Your task to perform on an android device: open app "Walmart Shopping & Grocery" (install if not already installed) Image 0: 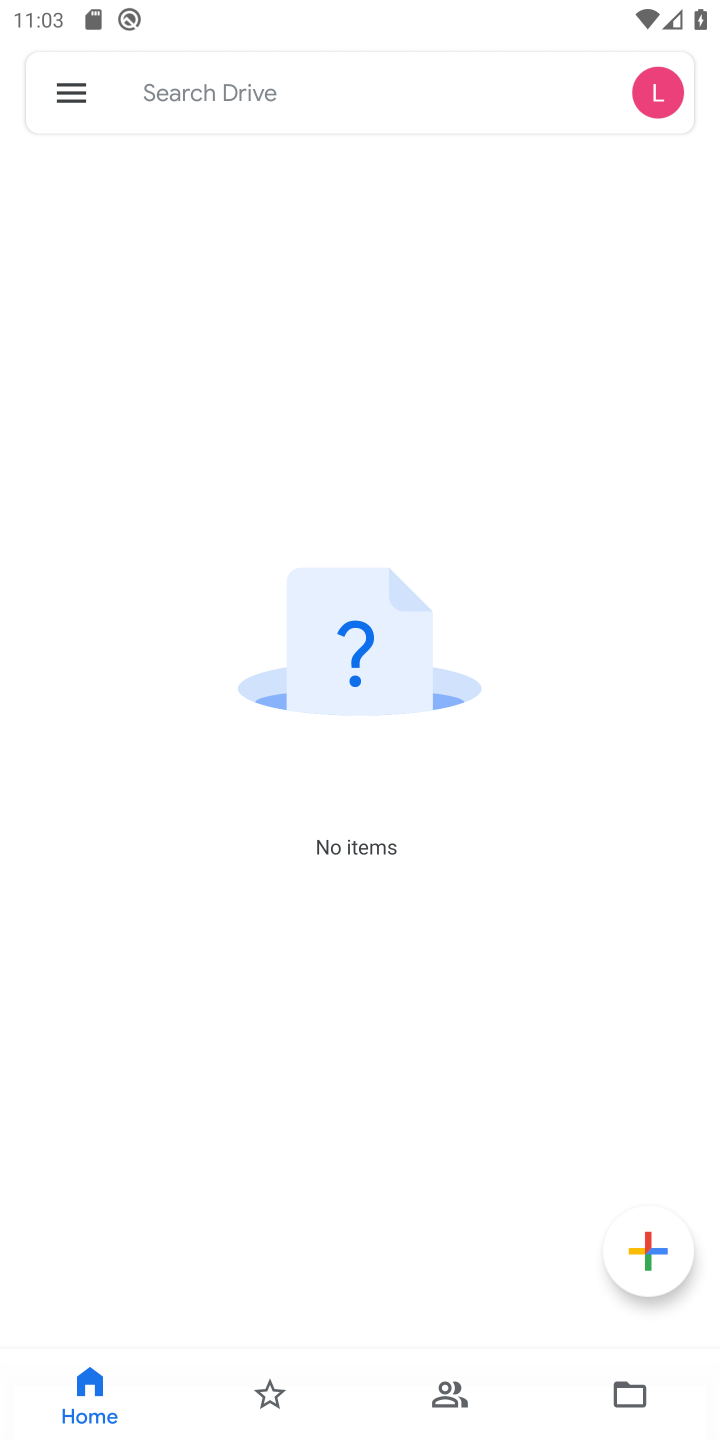
Step 0: press home button
Your task to perform on an android device: open app "Walmart Shopping & Grocery" (install if not already installed) Image 1: 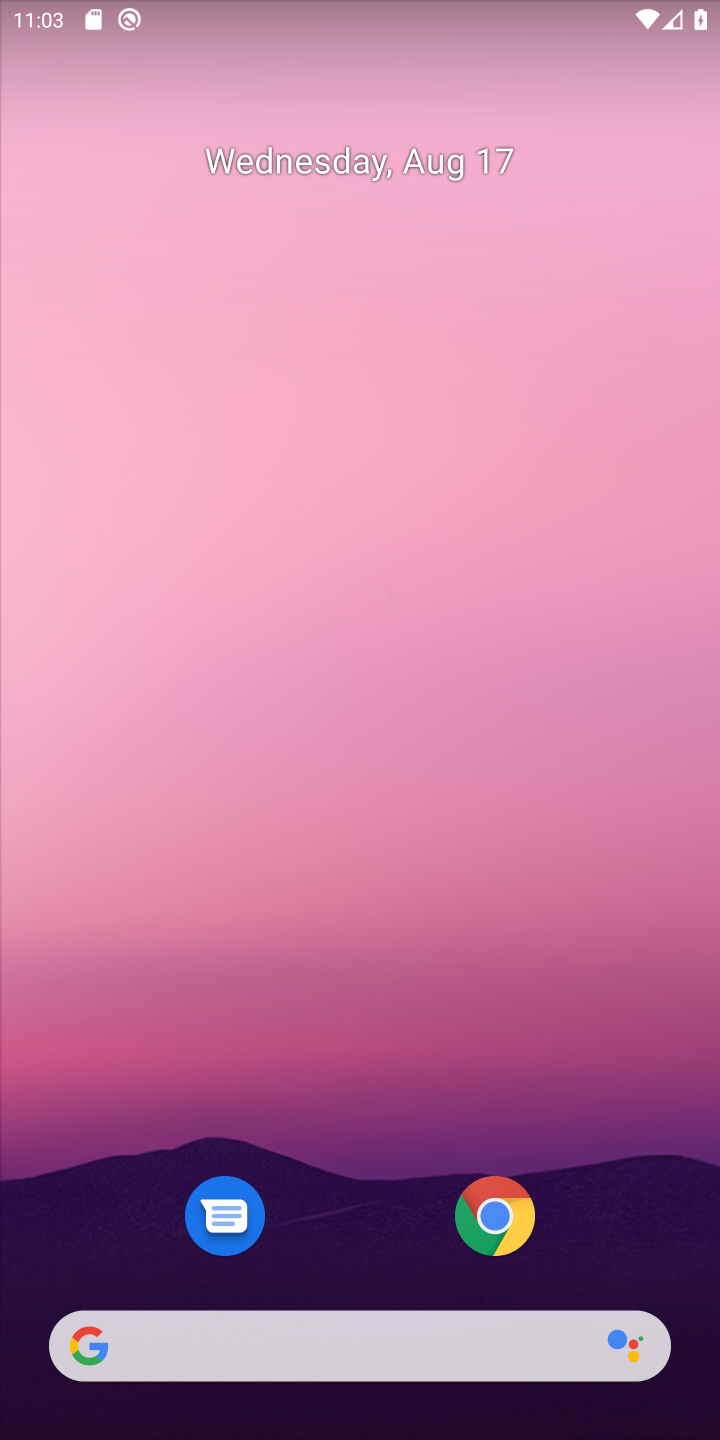
Step 1: drag from (336, 1110) to (304, 348)
Your task to perform on an android device: open app "Walmart Shopping & Grocery" (install if not already installed) Image 2: 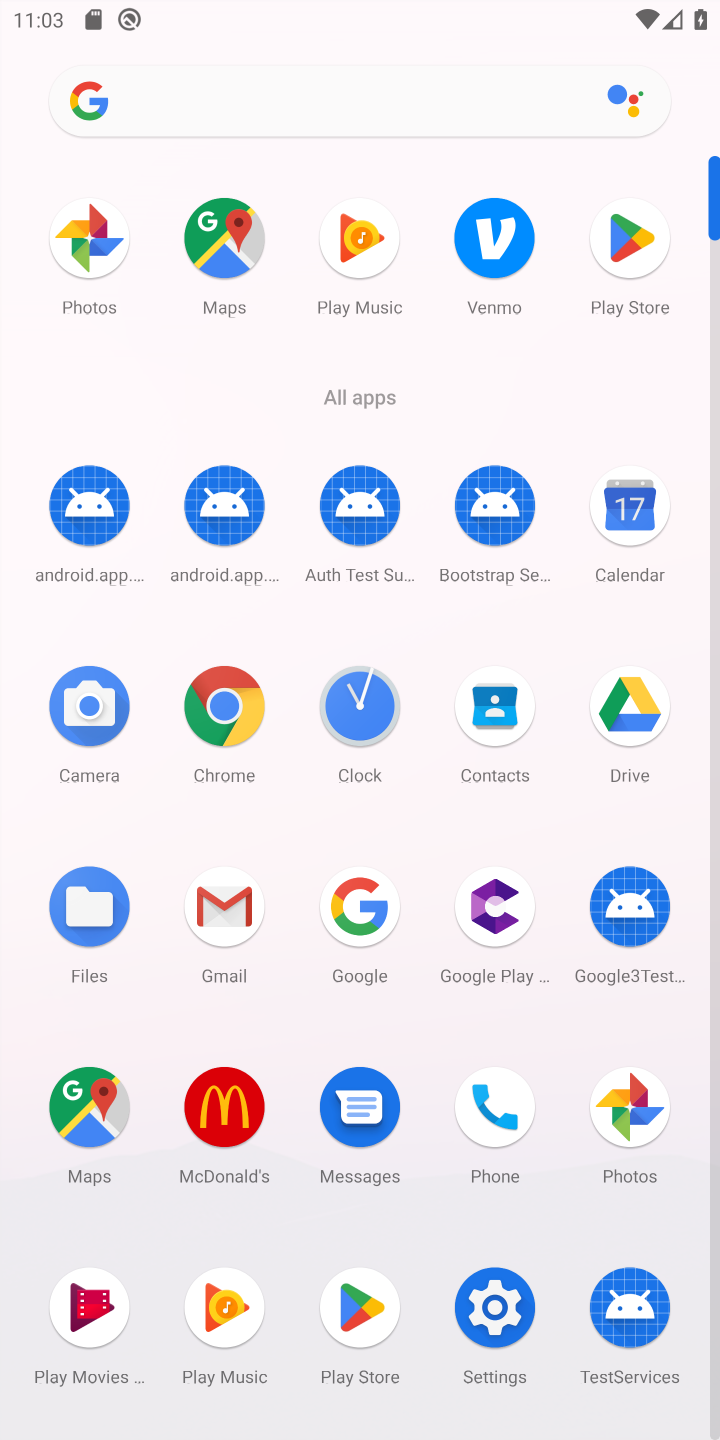
Step 2: click (359, 1318)
Your task to perform on an android device: open app "Walmart Shopping & Grocery" (install if not already installed) Image 3: 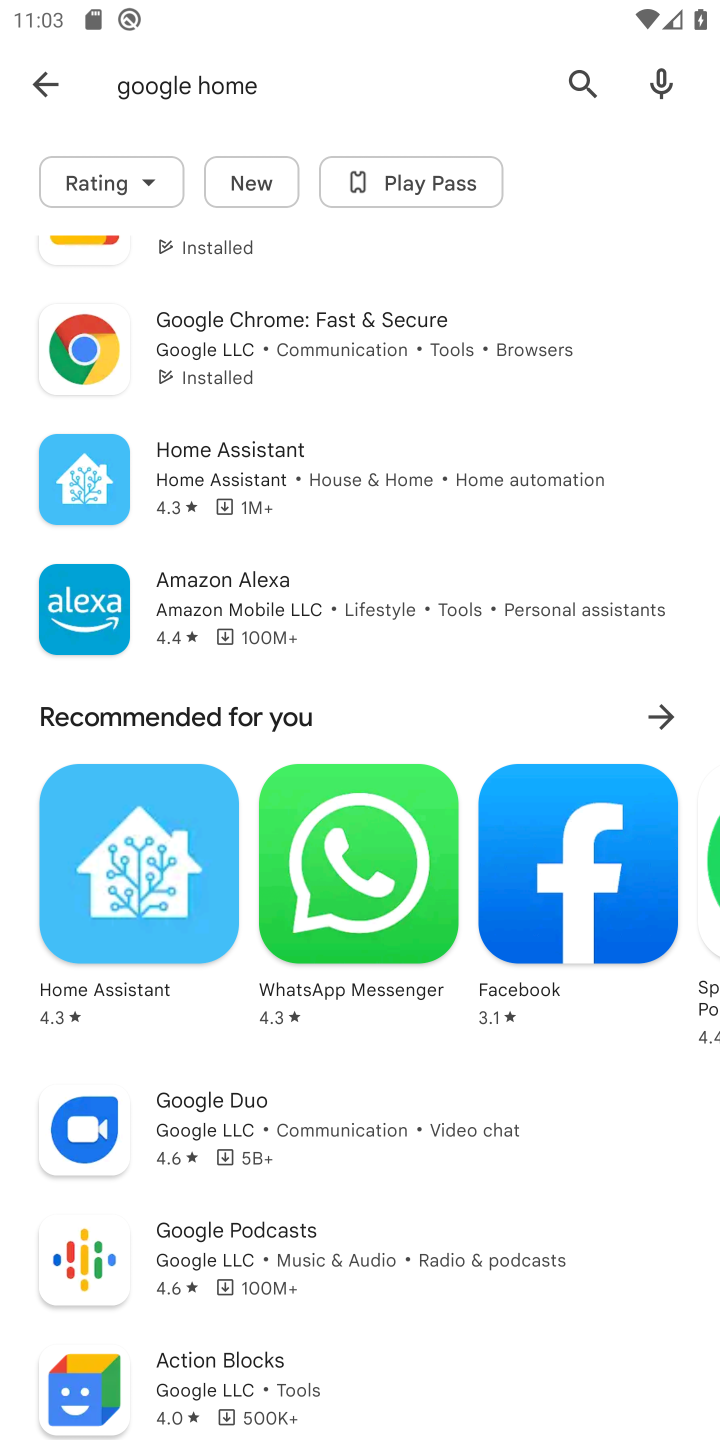
Step 3: click (568, 73)
Your task to perform on an android device: open app "Walmart Shopping & Grocery" (install if not already installed) Image 4: 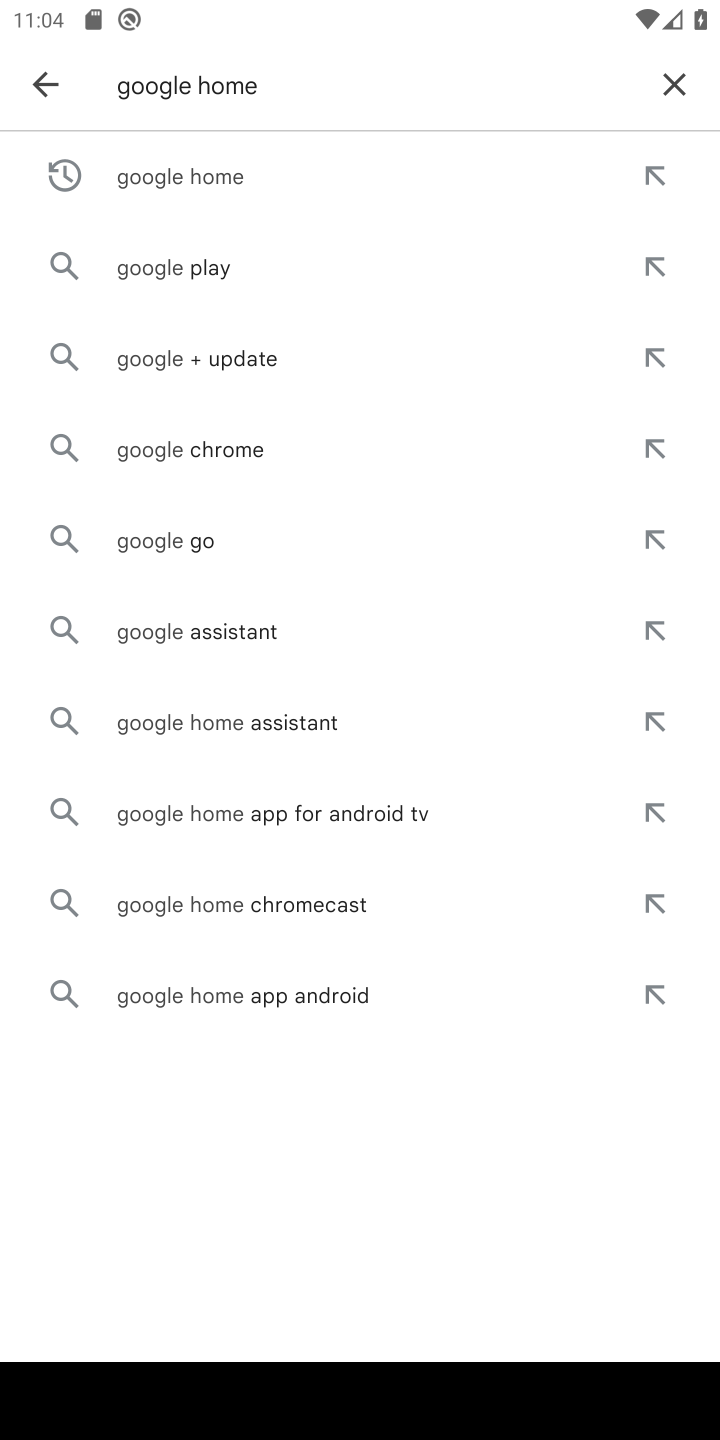
Step 4: click (684, 85)
Your task to perform on an android device: open app "Walmart Shopping & Grocery" (install if not already installed) Image 5: 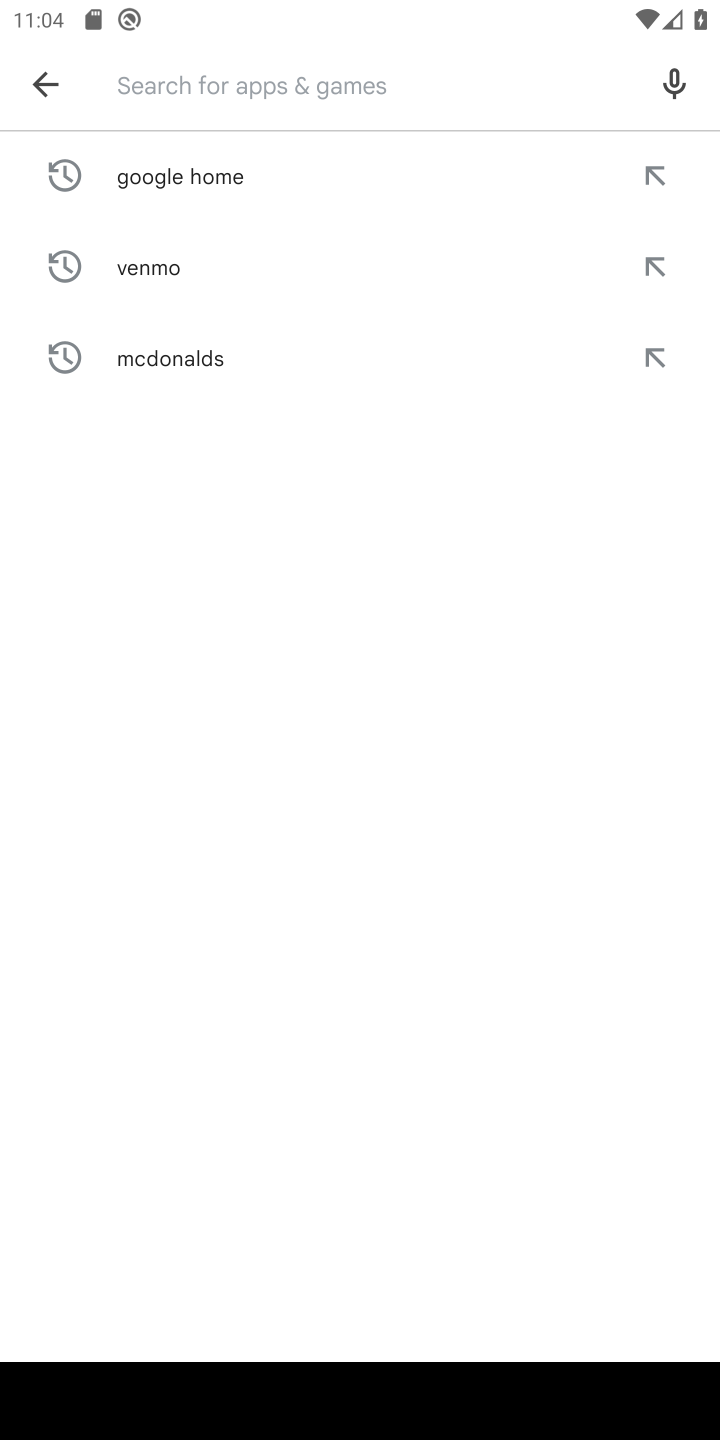
Step 5: type "walmart shopping"
Your task to perform on an android device: open app "Walmart Shopping & Grocery" (install if not already installed) Image 6: 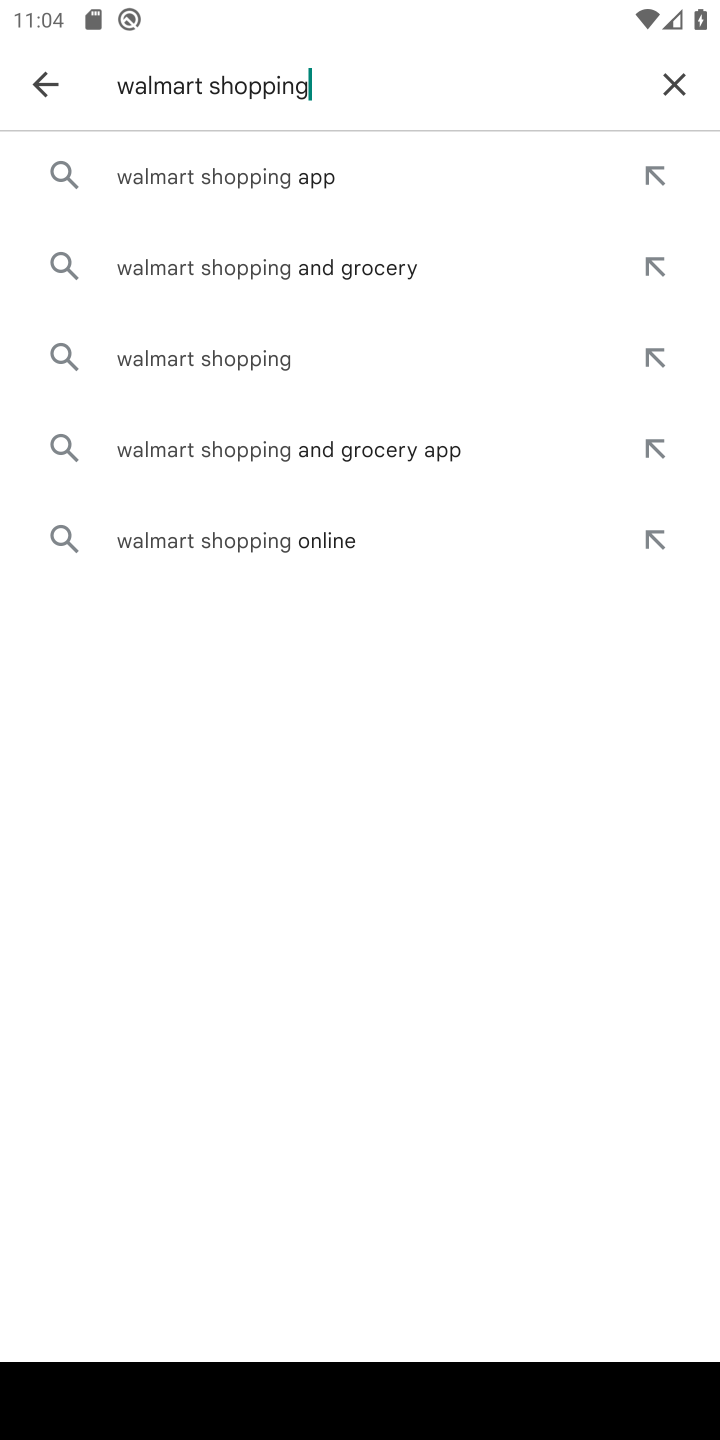
Step 6: click (339, 260)
Your task to perform on an android device: open app "Walmart Shopping & Grocery" (install if not already installed) Image 7: 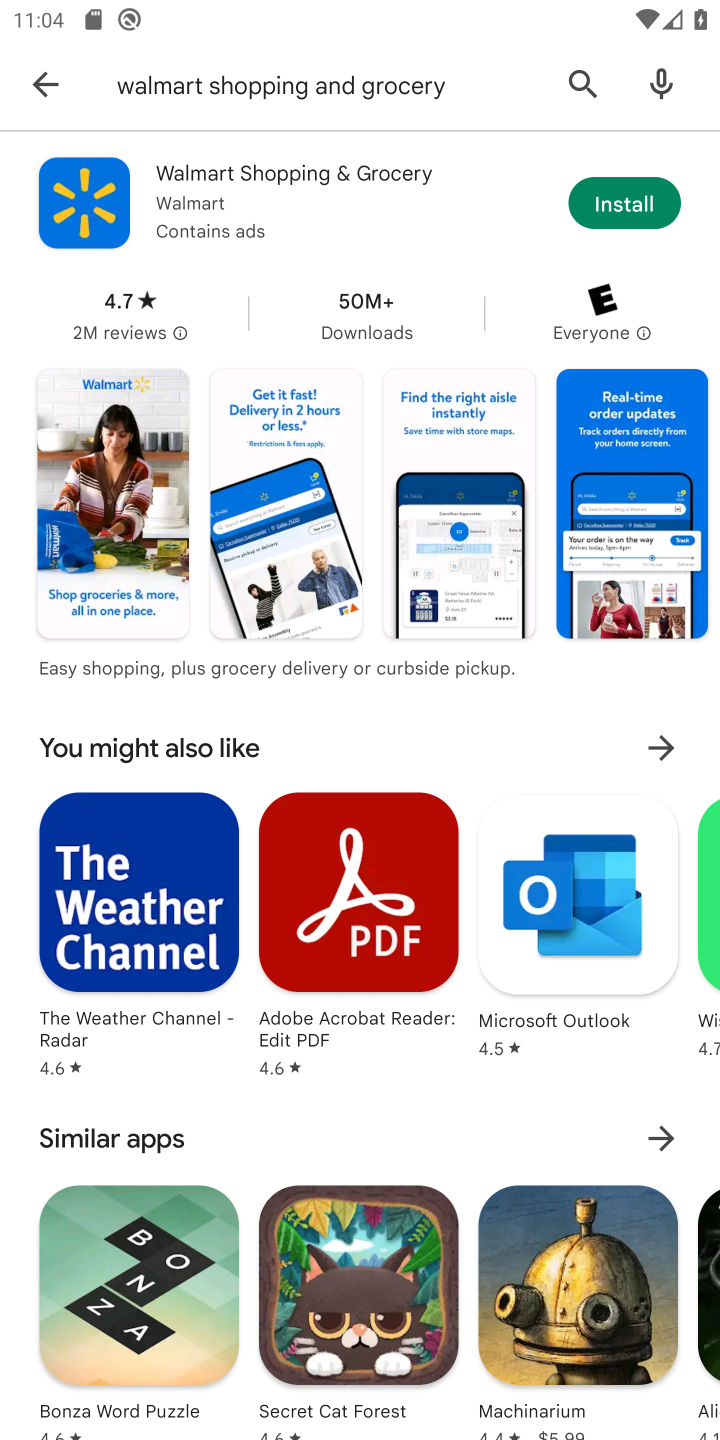
Step 7: click (608, 210)
Your task to perform on an android device: open app "Walmart Shopping & Grocery" (install if not already installed) Image 8: 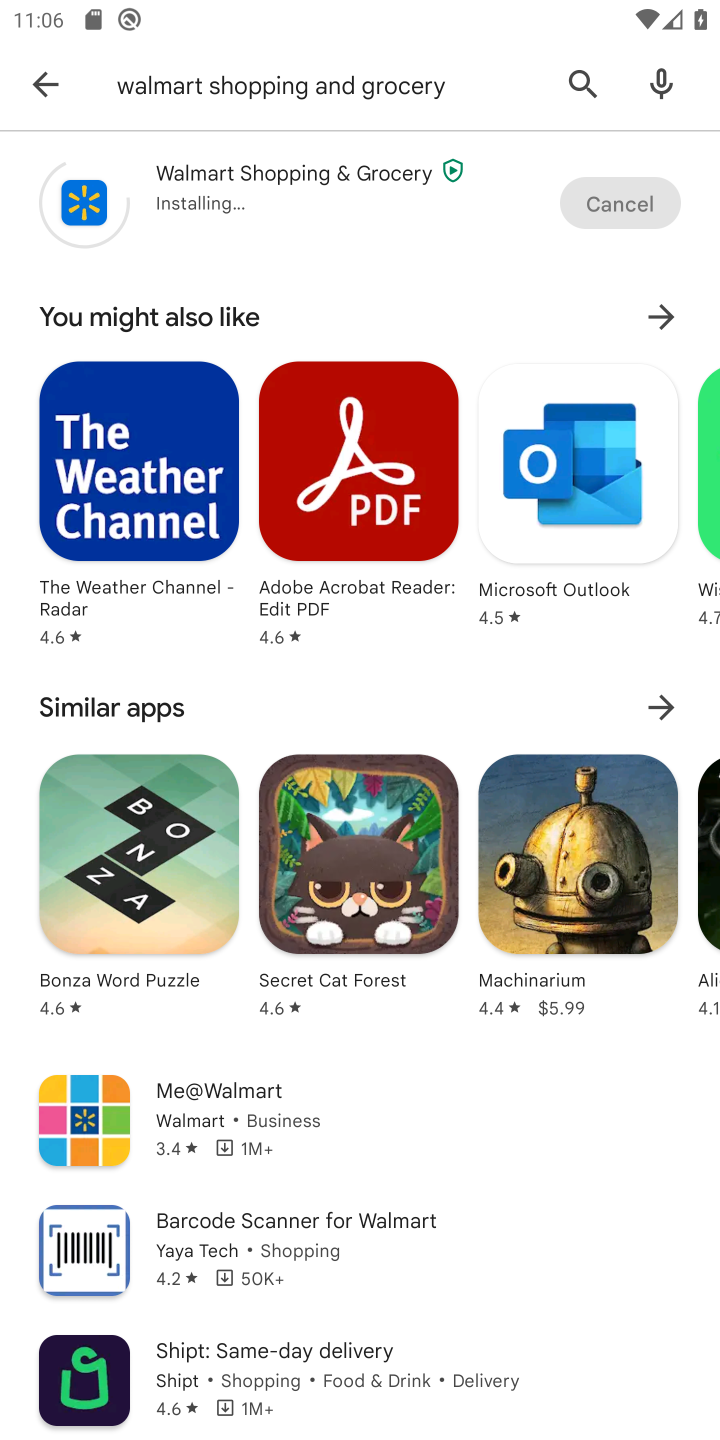
Step 8: click (374, 205)
Your task to perform on an android device: open app "Walmart Shopping & Grocery" (install if not already installed) Image 9: 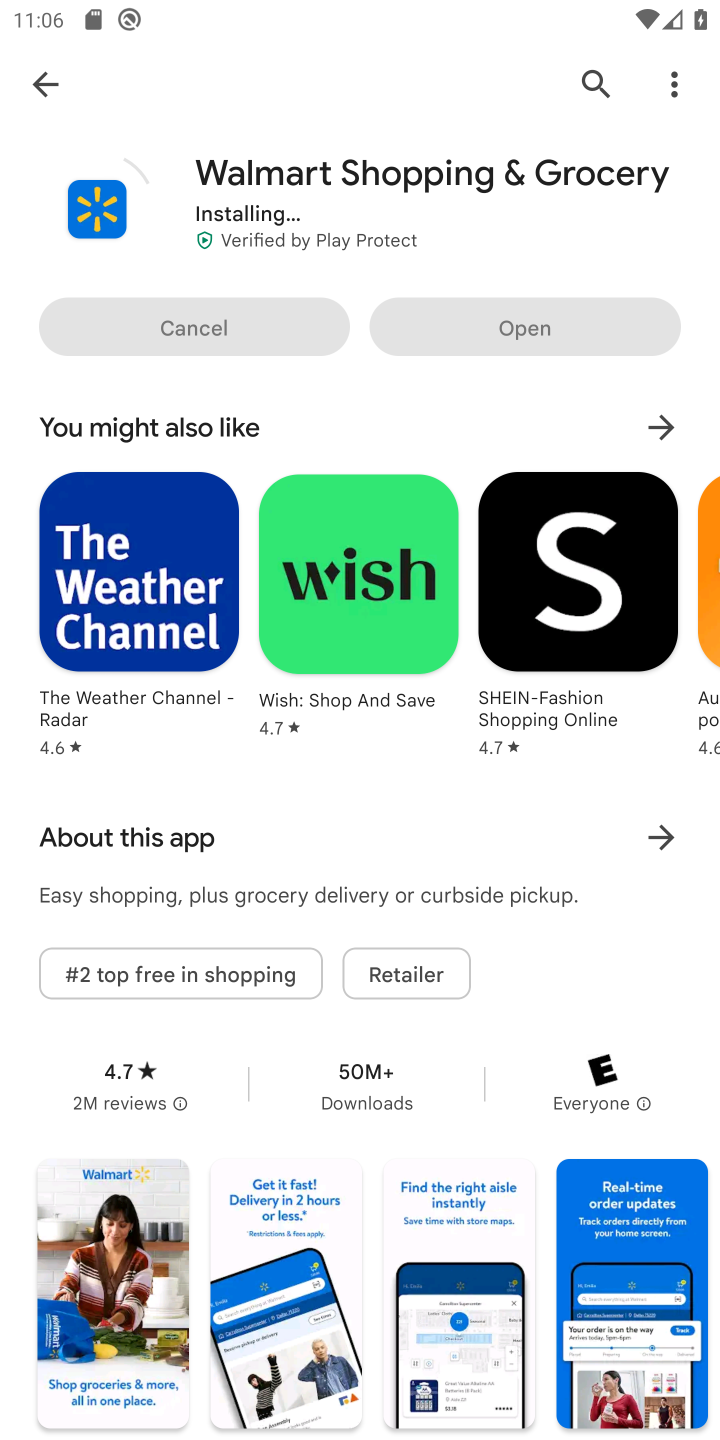
Step 9: drag from (374, 228) to (524, 1159)
Your task to perform on an android device: open app "Walmart Shopping & Grocery" (install if not already installed) Image 10: 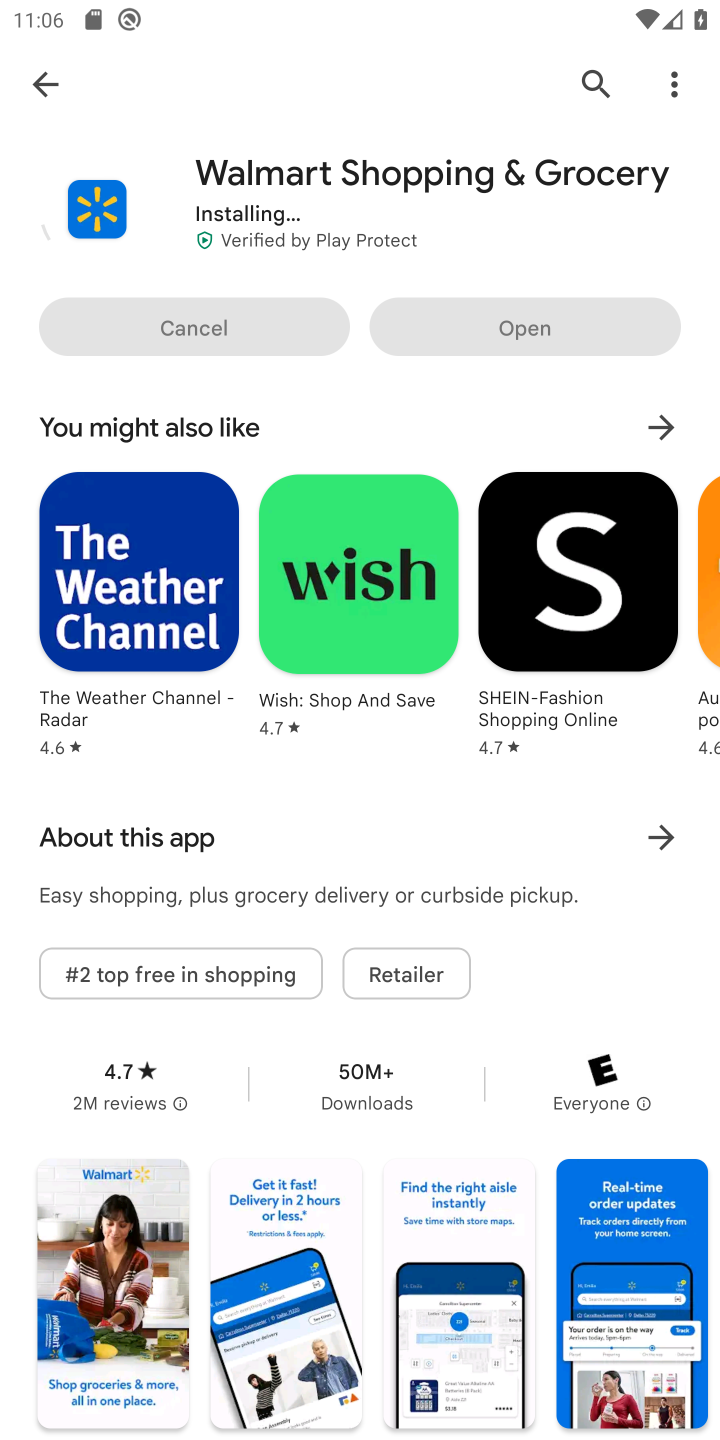
Step 10: drag from (356, 189) to (397, 1205)
Your task to perform on an android device: open app "Walmart Shopping & Grocery" (install if not already installed) Image 11: 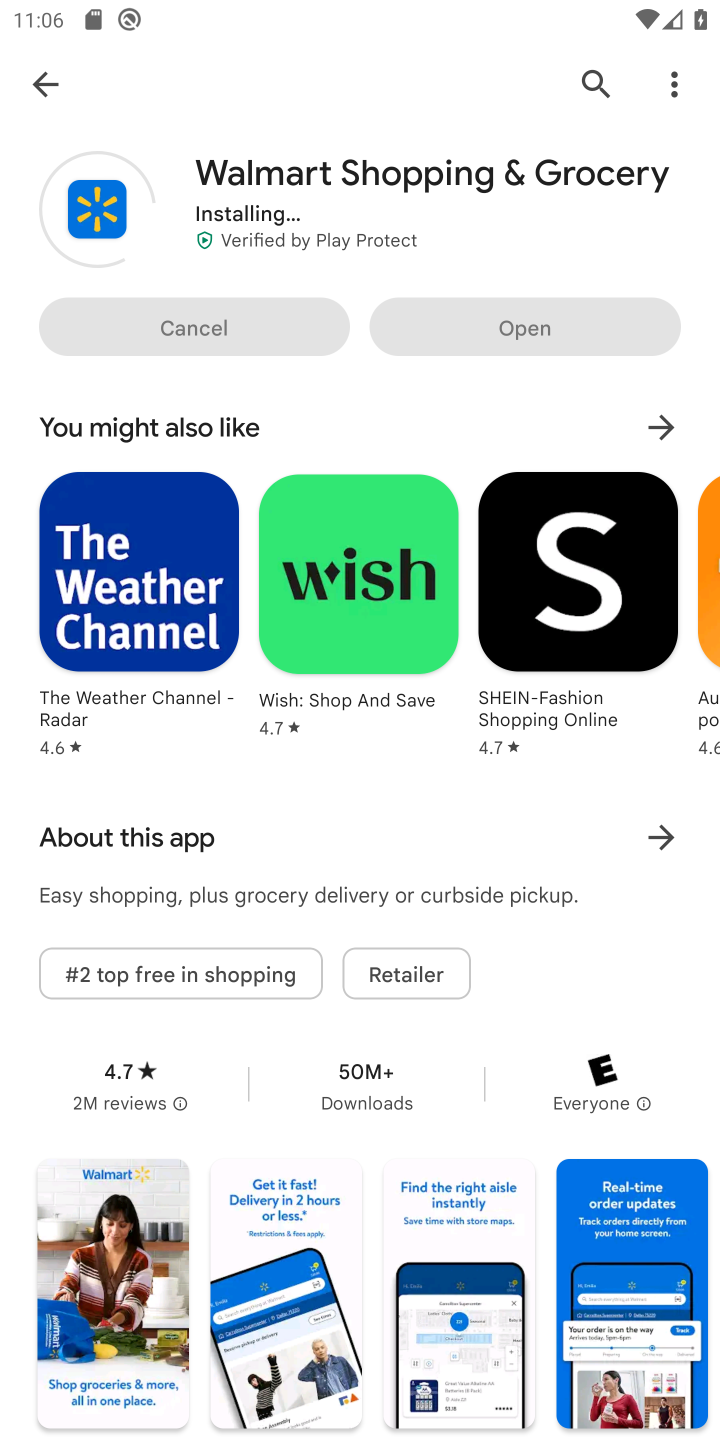
Step 11: drag from (384, 802) to (467, 1375)
Your task to perform on an android device: open app "Walmart Shopping & Grocery" (install if not already installed) Image 12: 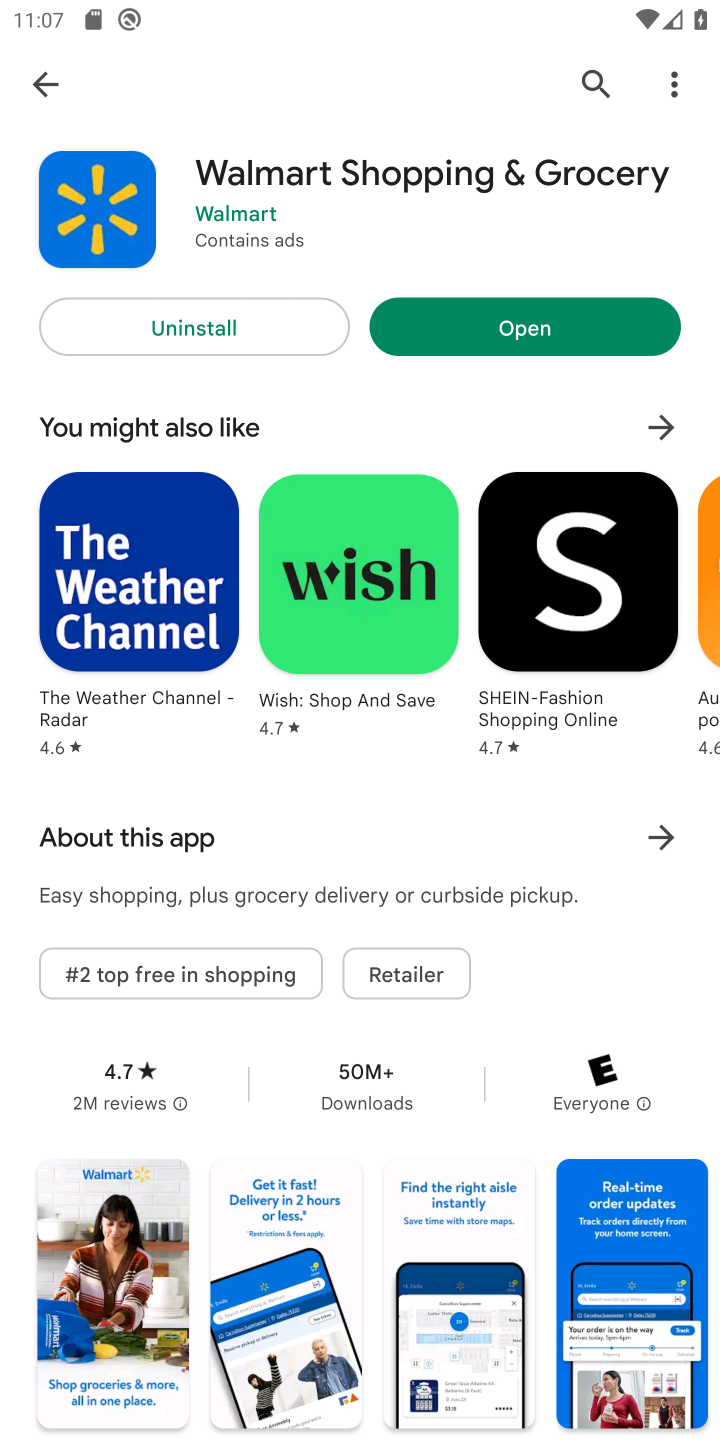
Step 12: click (581, 314)
Your task to perform on an android device: open app "Walmart Shopping & Grocery" (install if not already installed) Image 13: 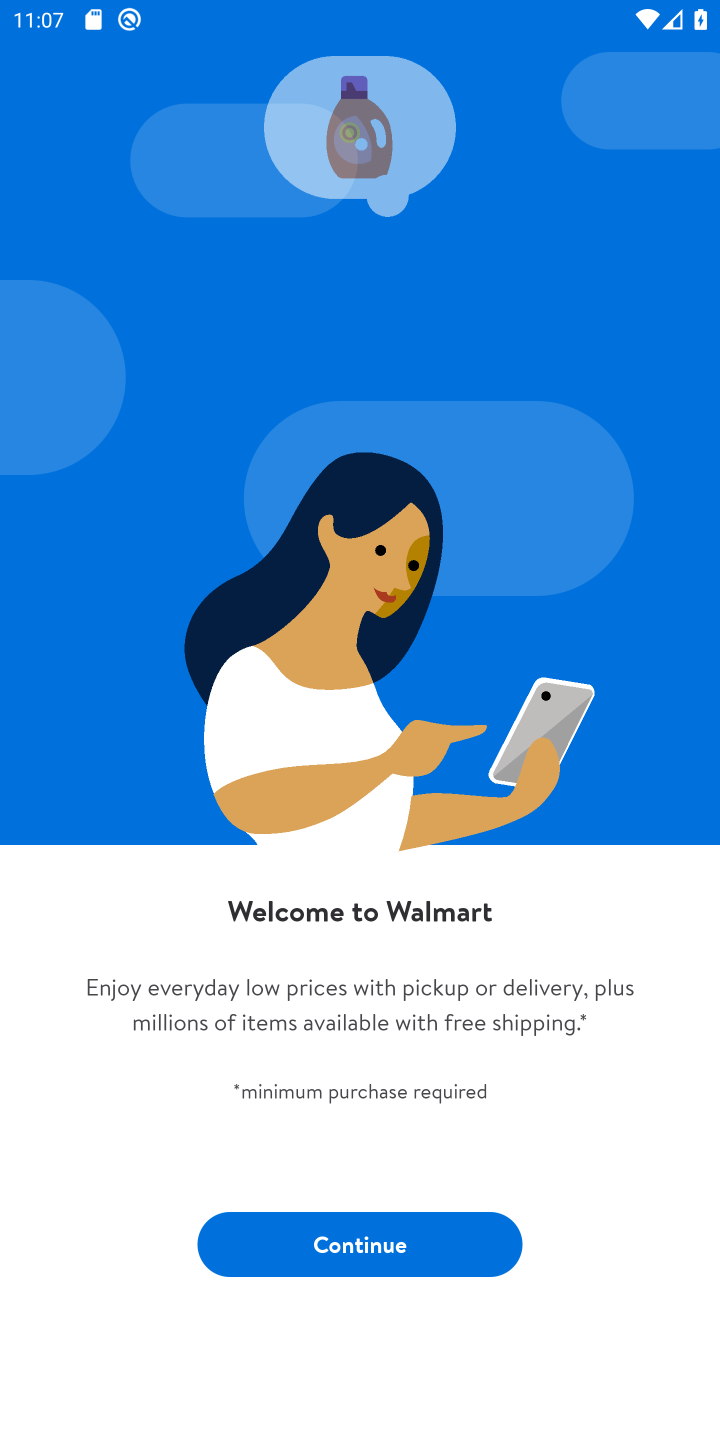
Step 13: task complete